Your task to perform on an android device: Is it going to rain this weekend? Image 0: 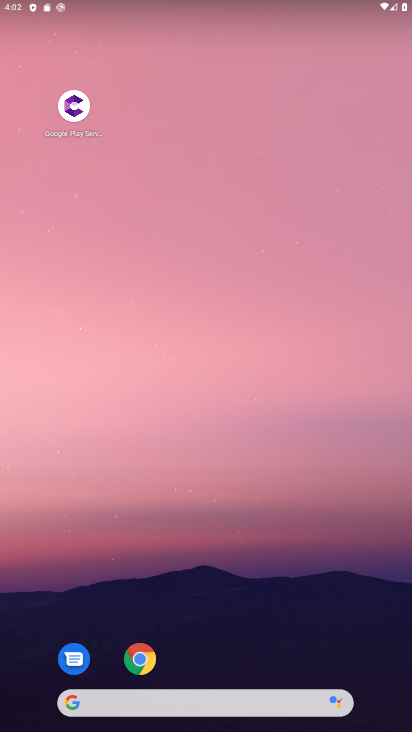
Step 0: drag from (202, 675) to (272, 235)
Your task to perform on an android device: Is it going to rain this weekend? Image 1: 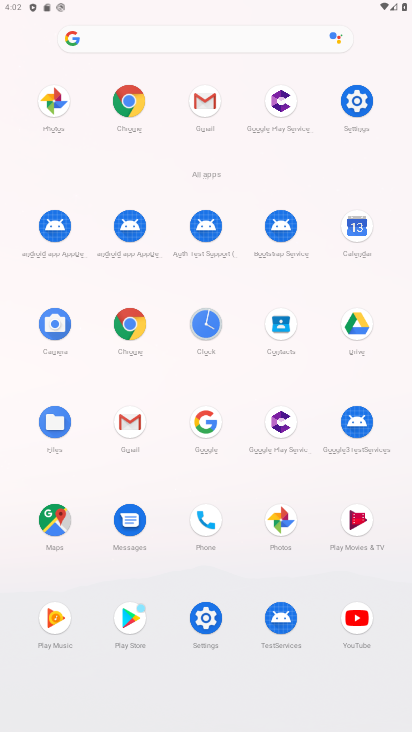
Step 1: click (206, 426)
Your task to perform on an android device: Is it going to rain this weekend? Image 2: 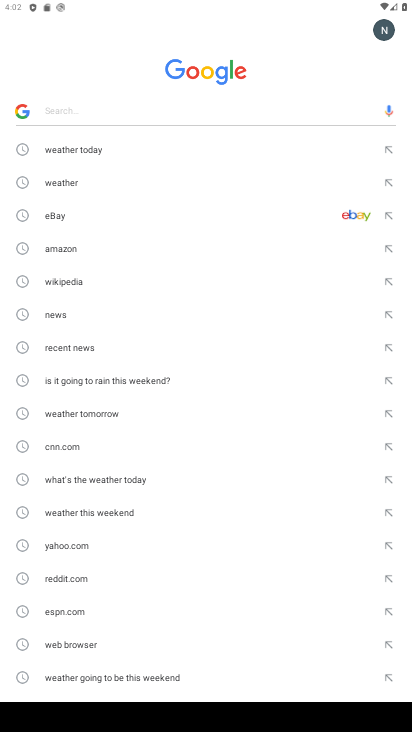
Step 2: type "Is it going to rain this weekend?"
Your task to perform on an android device: Is it going to rain this weekend? Image 3: 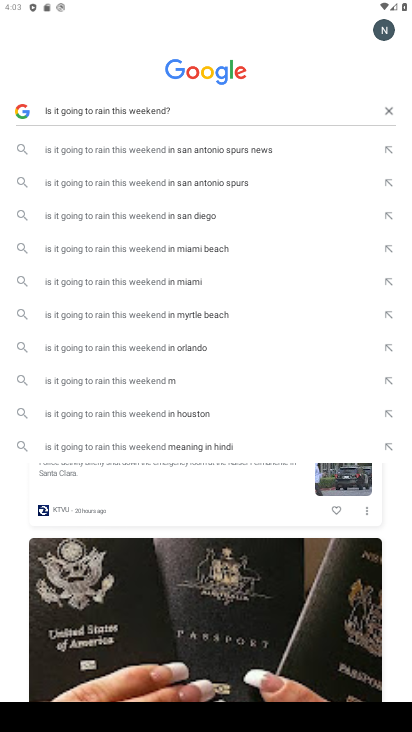
Step 3: press enter
Your task to perform on an android device: Is it going to rain this weekend? Image 4: 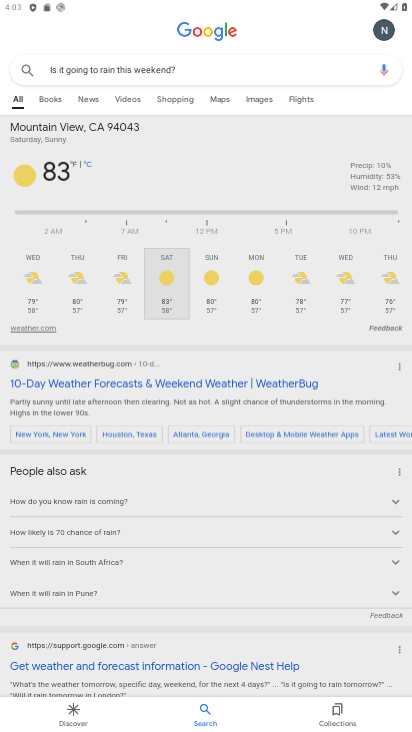
Step 4: task complete